Your task to perform on an android device: open app "Grab" (install if not already installed) and go to login screen Image 0: 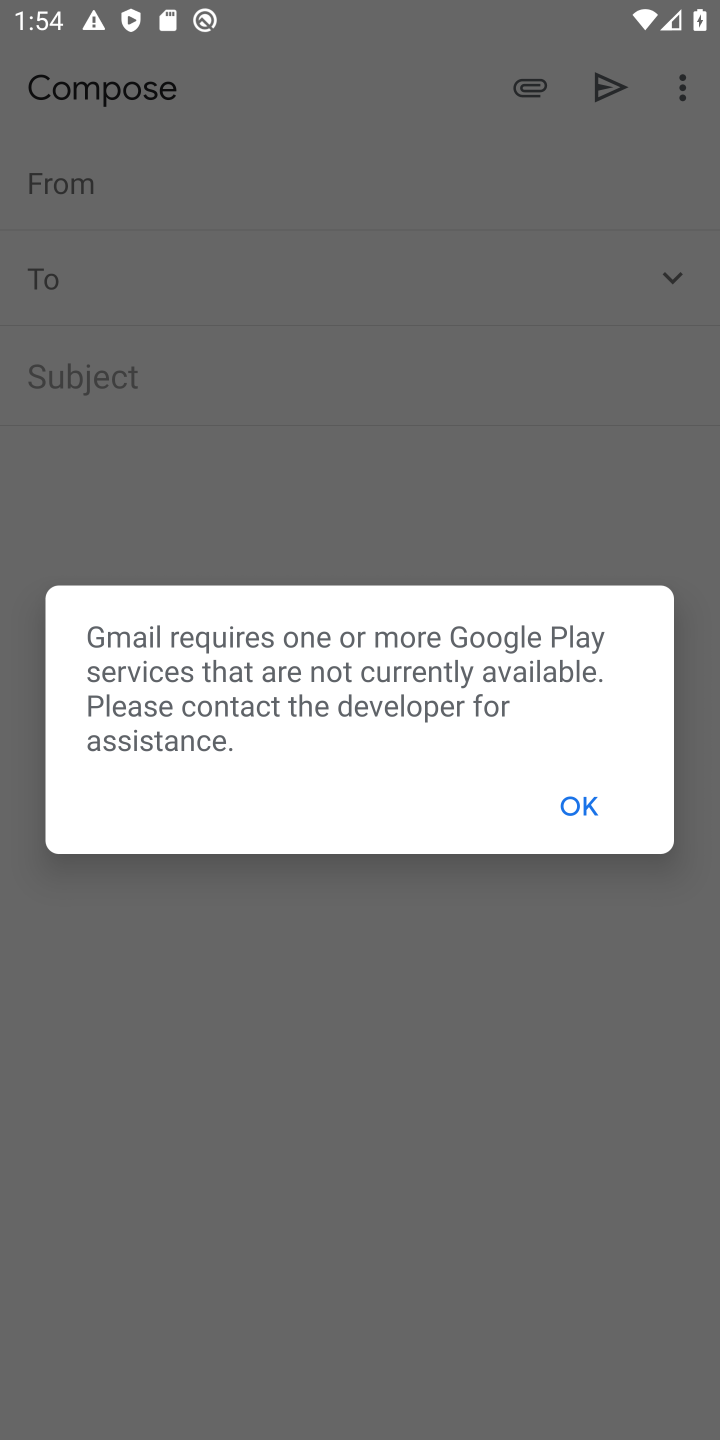
Step 0: click (579, 84)
Your task to perform on an android device: open app "Grab" (install if not already installed) and go to login screen Image 1: 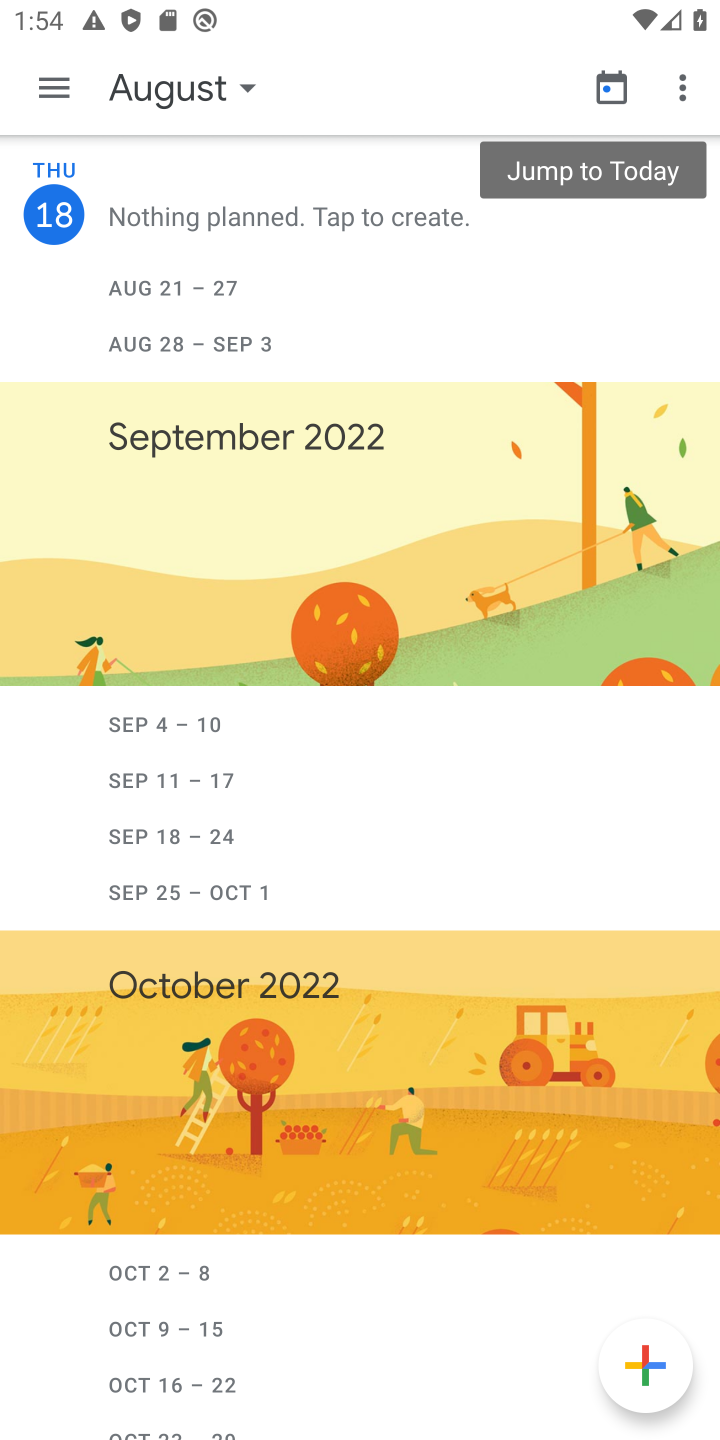
Step 1: press home button
Your task to perform on an android device: open app "Grab" (install if not already installed) and go to login screen Image 2: 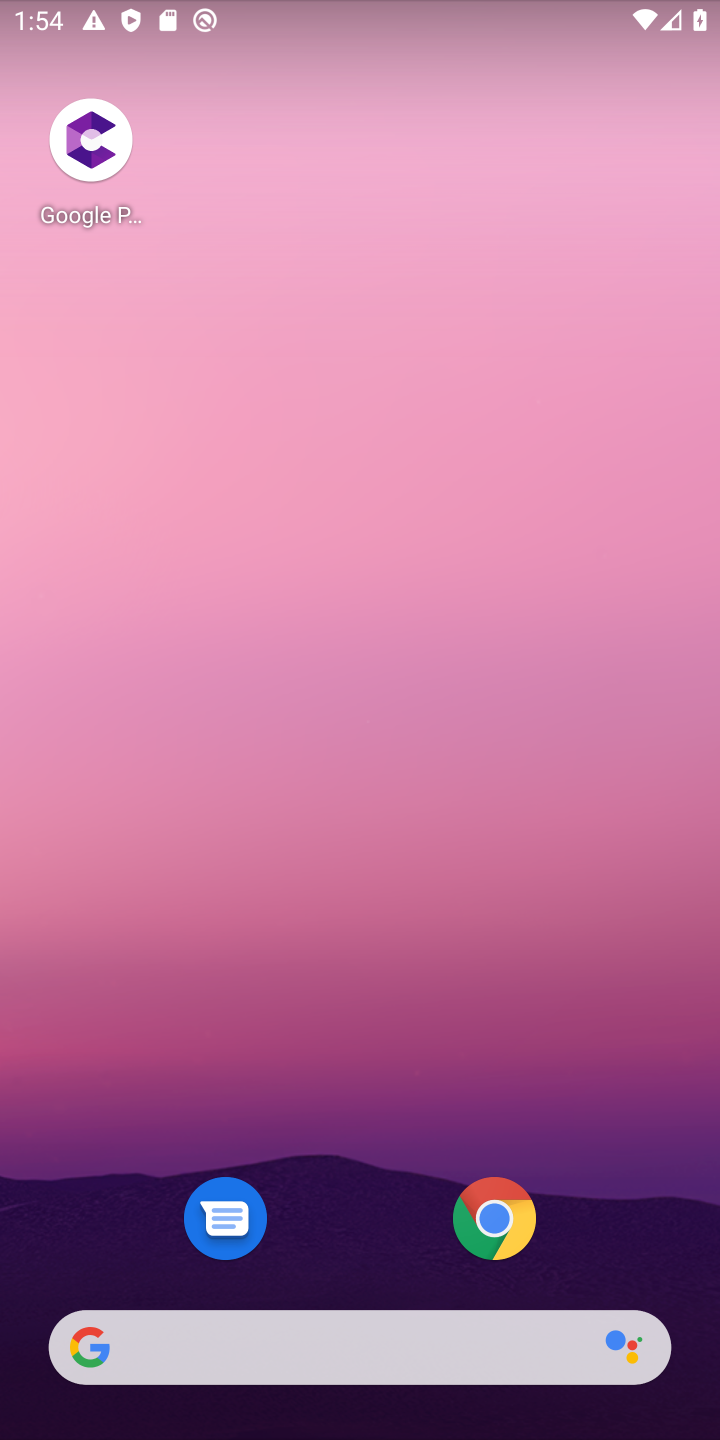
Step 2: drag from (369, 722) to (369, 256)
Your task to perform on an android device: open app "Grab" (install if not already installed) and go to login screen Image 3: 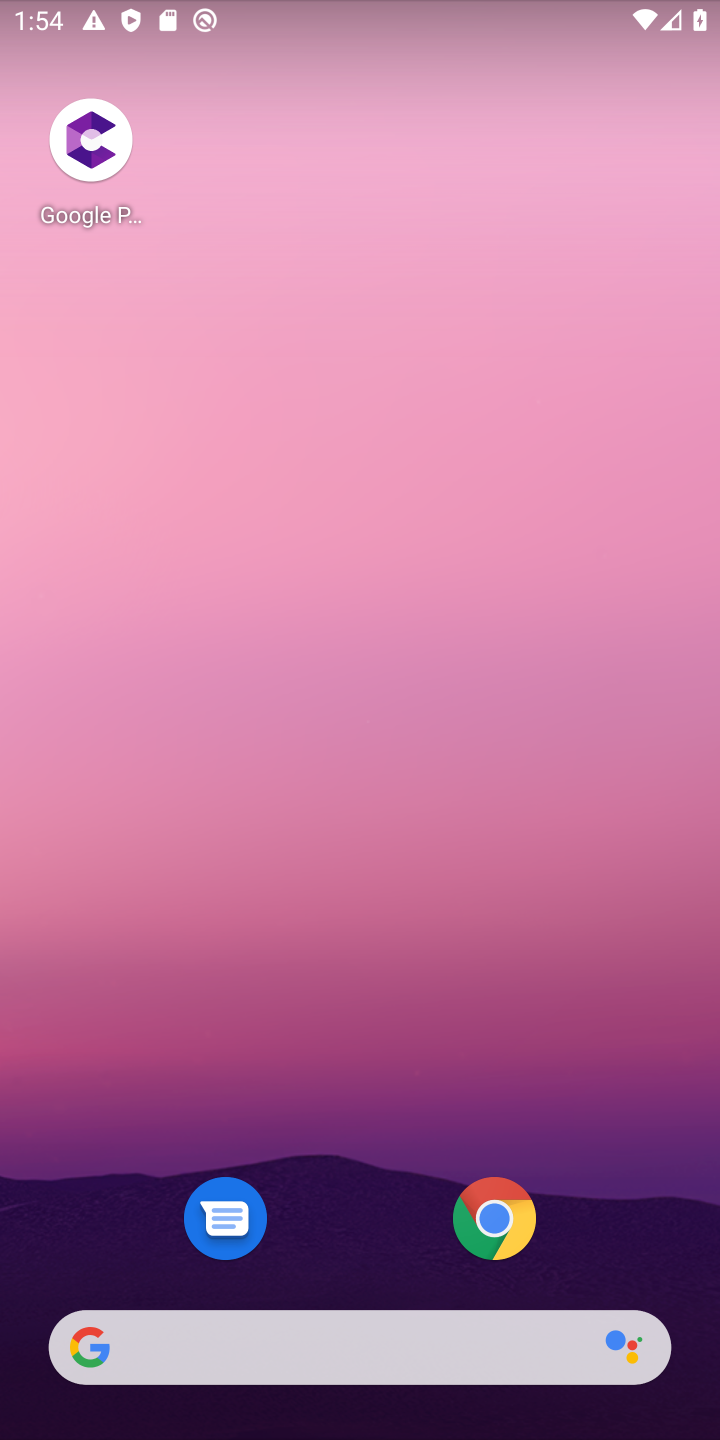
Step 3: drag from (360, 1159) to (369, 352)
Your task to perform on an android device: open app "Grab" (install if not already installed) and go to login screen Image 4: 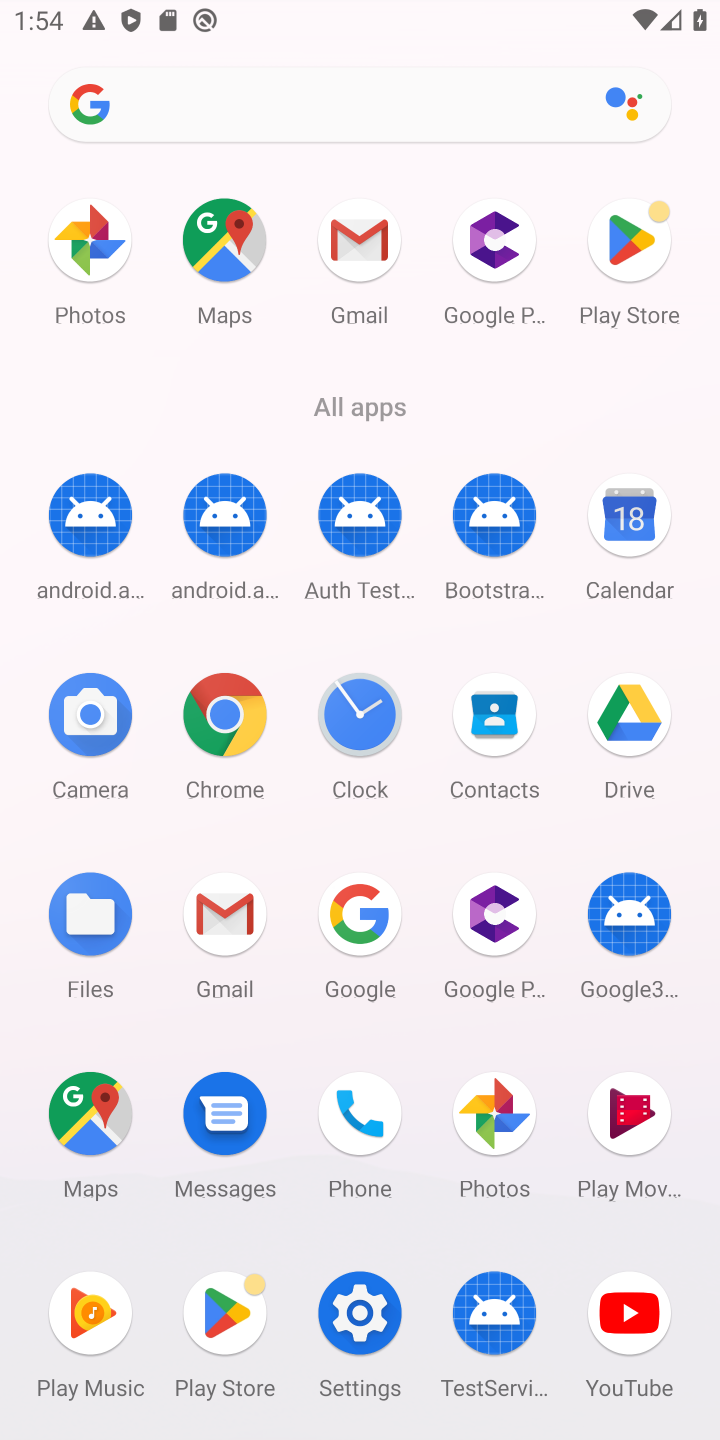
Step 4: click (635, 244)
Your task to perform on an android device: open app "Grab" (install if not already installed) and go to login screen Image 5: 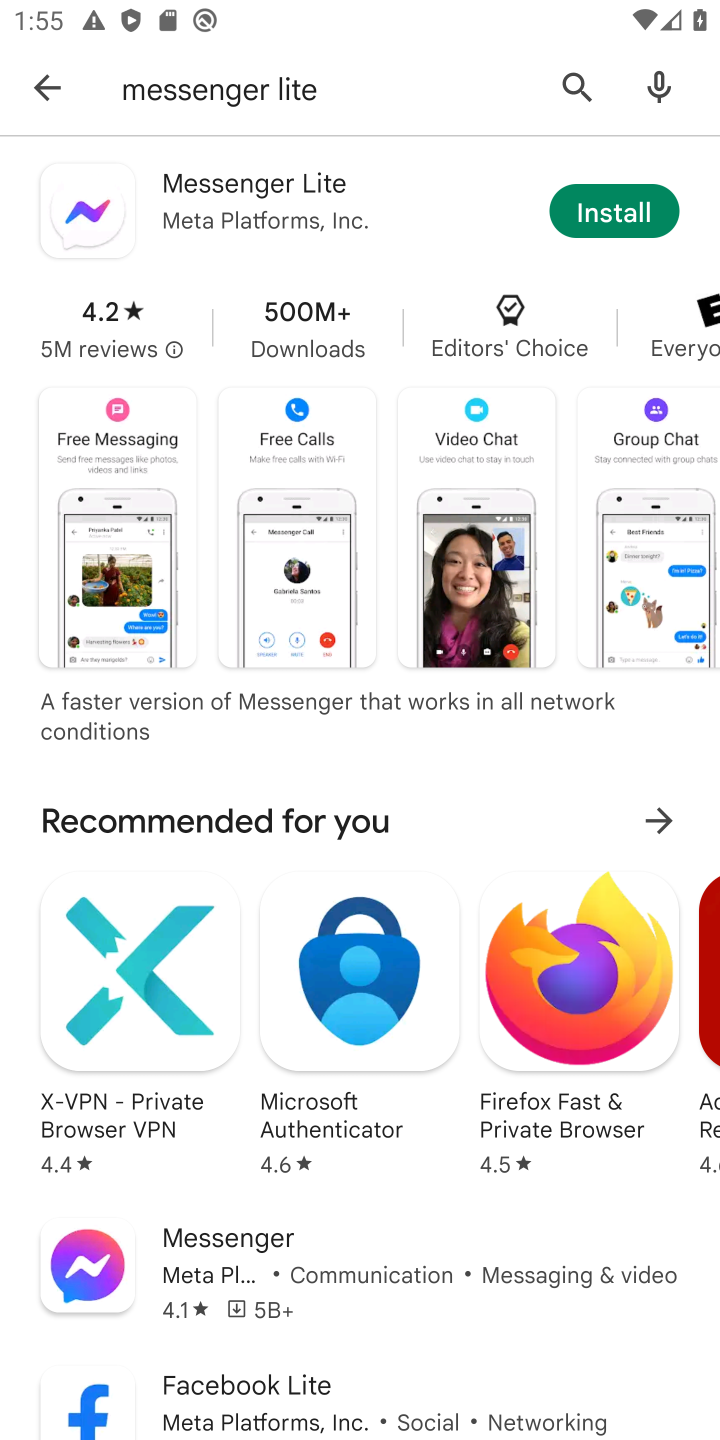
Step 5: click (577, 89)
Your task to perform on an android device: open app "Grab" (install if not already installed) and go to login screen Image 6: 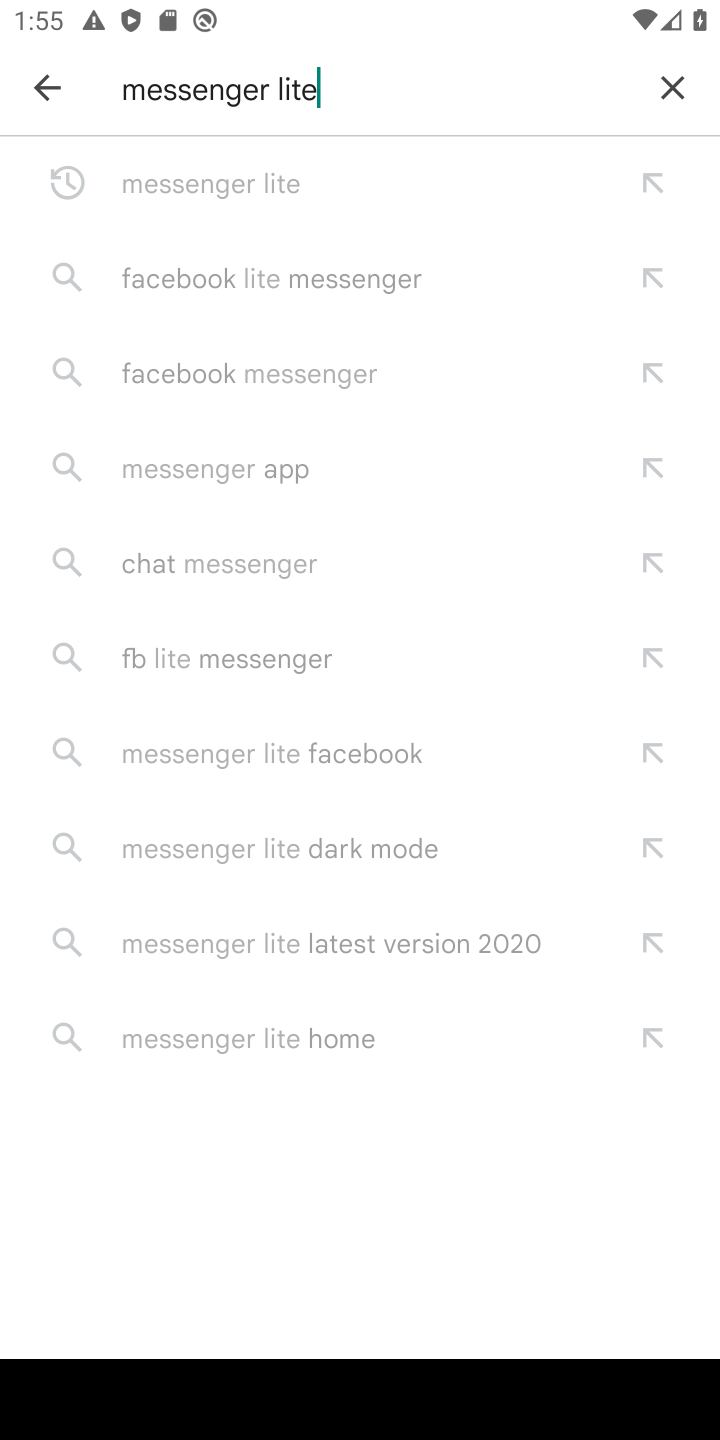
Step 6: click (658, 82)
Your task to perform on an android device: open app "Grab" (install if not already installed) and go to login screen Image 7: 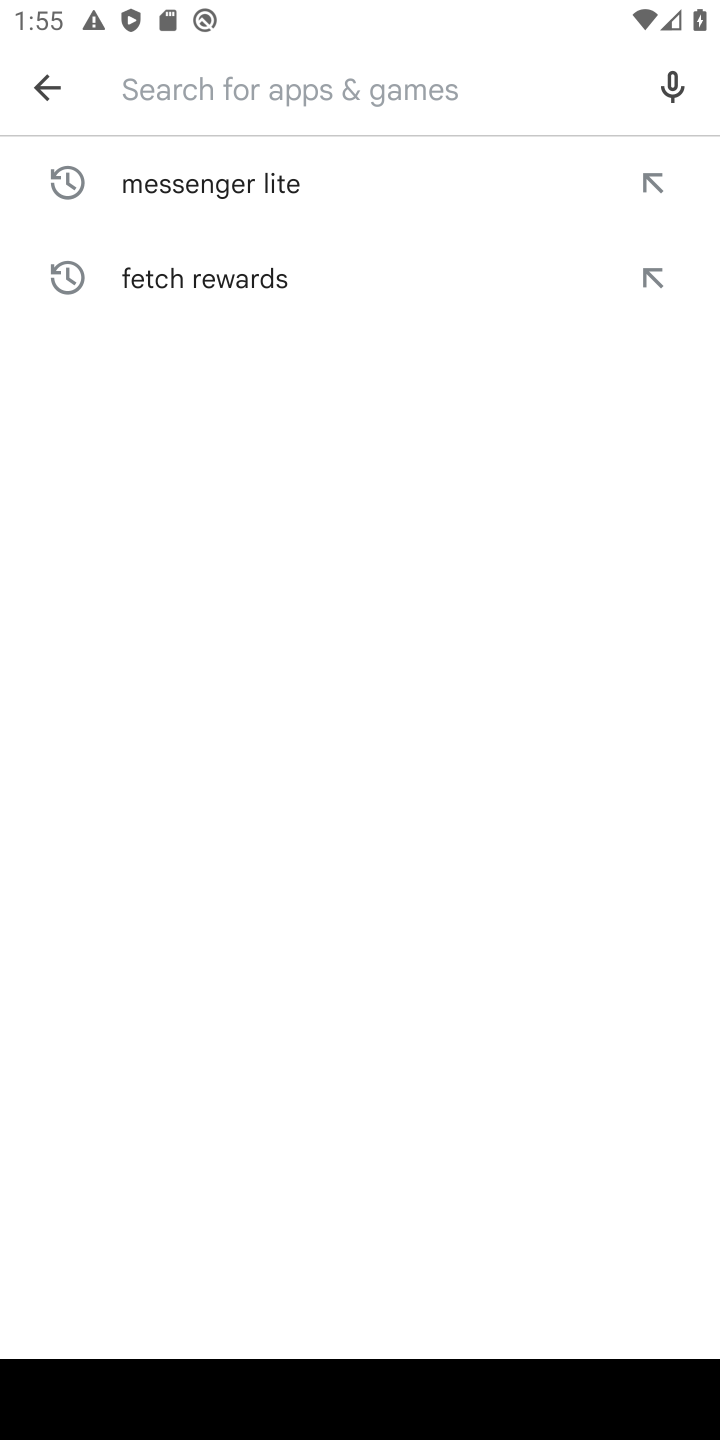
Step 7: type "Grab"
Your task to perform on an android device: open app "Grab" (install if not already installed) and go to login screen Image 8: 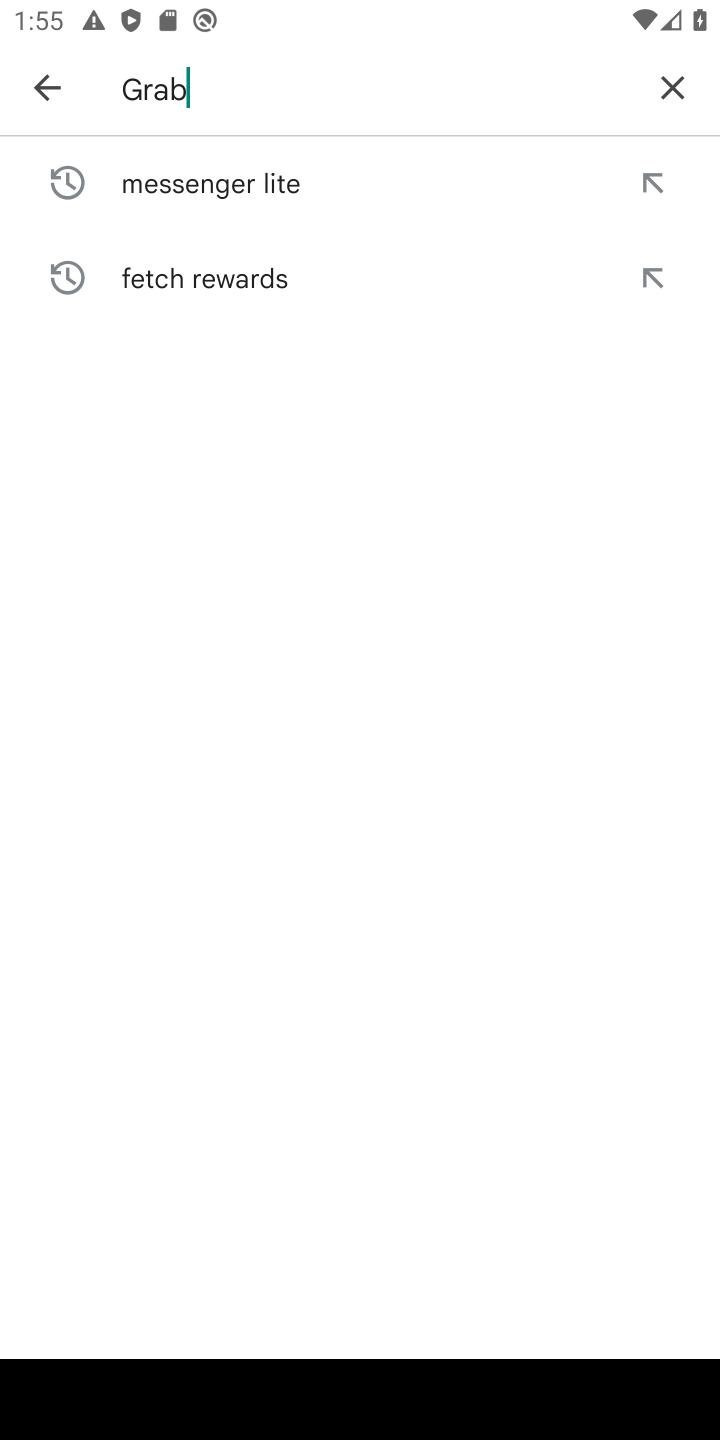
Step 8: type ""
Your task to perform on an android device: open app "Grab" (install if not already installed) and go to login screen Image 9: 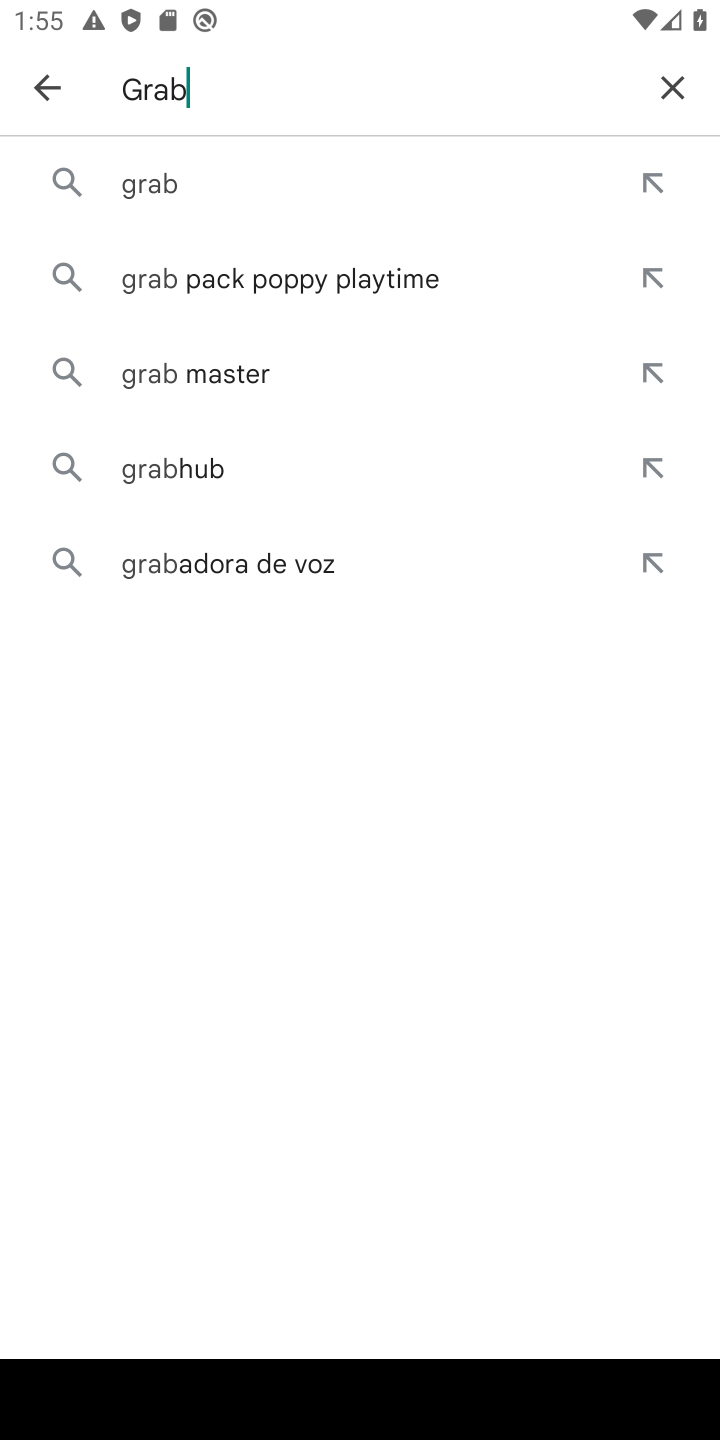
Step 9: click (219, 173)
Your task to perform on an android device: open app "Grab" (install if not already installed) and go to login screen Image 10: 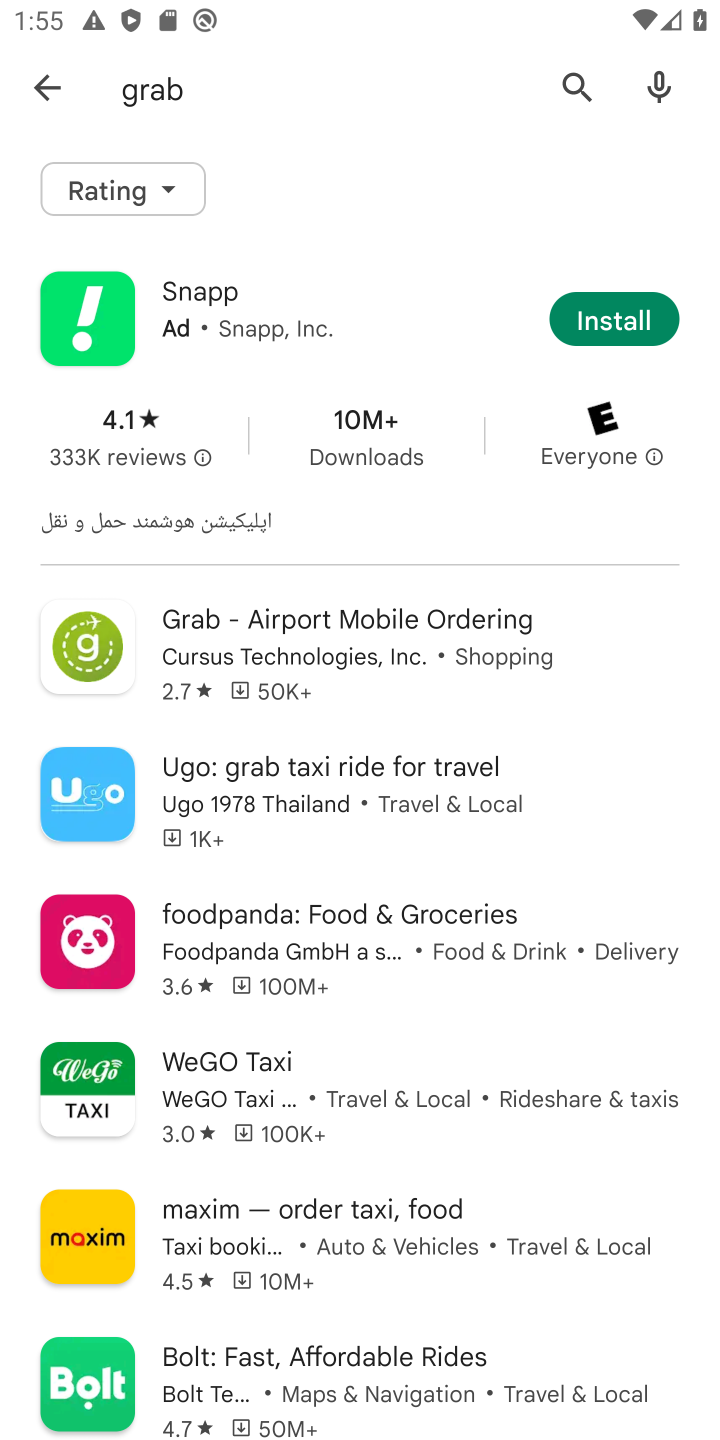
Step 10: click (425, 659)
Your task to perform on an android device: open app "Grab" (install if not already installed) and go to login screen Image 11: 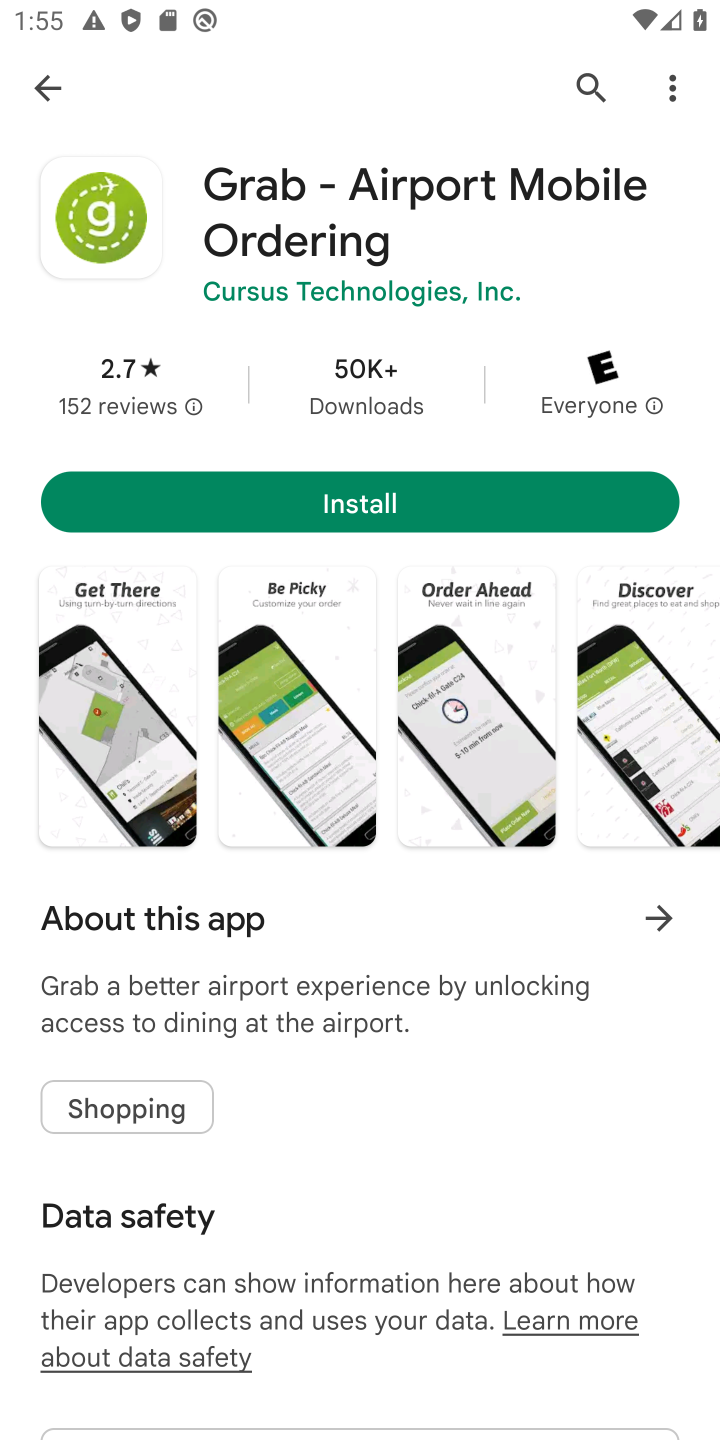
Step 11: click (427, 503)
Your task to perform on an android device: open app "Grab" (install if not already installed) and go to login screen Image 12: 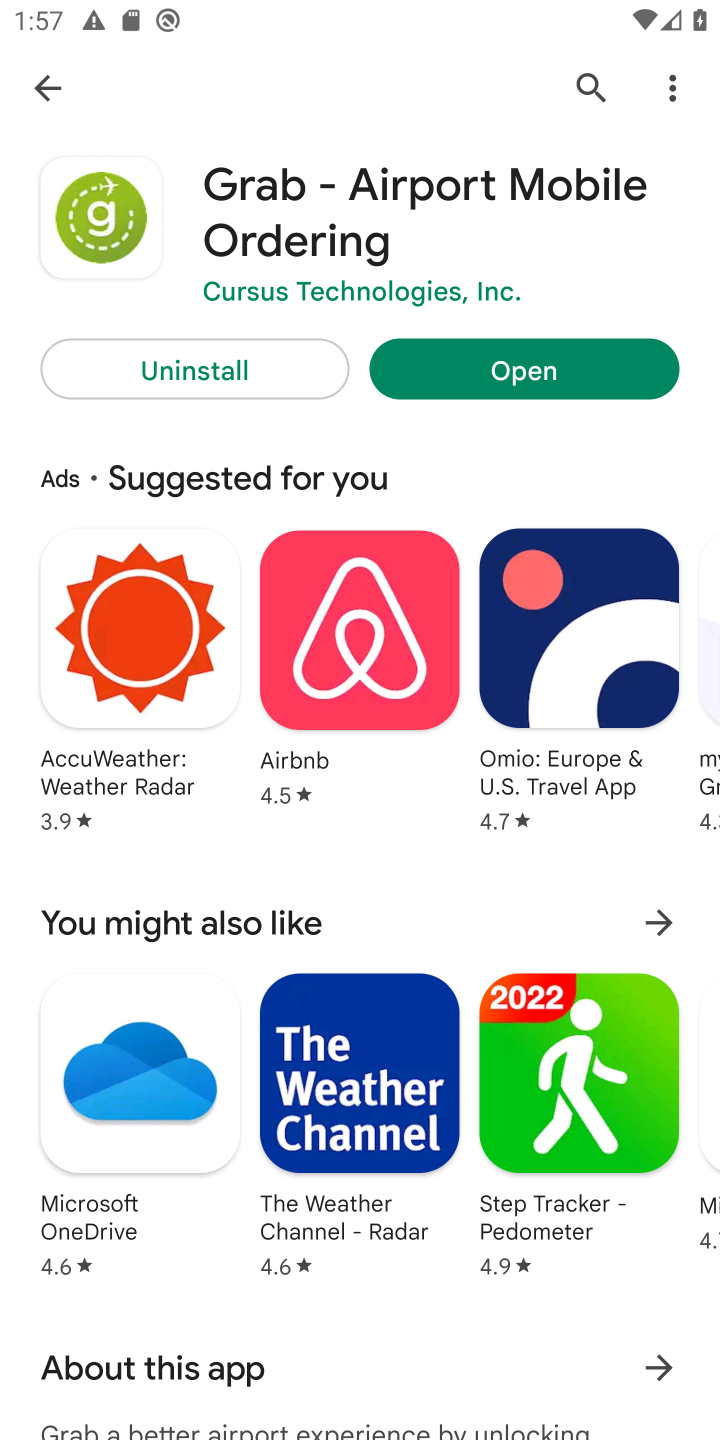
Step 12: click (646, 374)
Your task to perform on an android device: open app "Grab" (install if not already installed) and go to login screen Image 13: 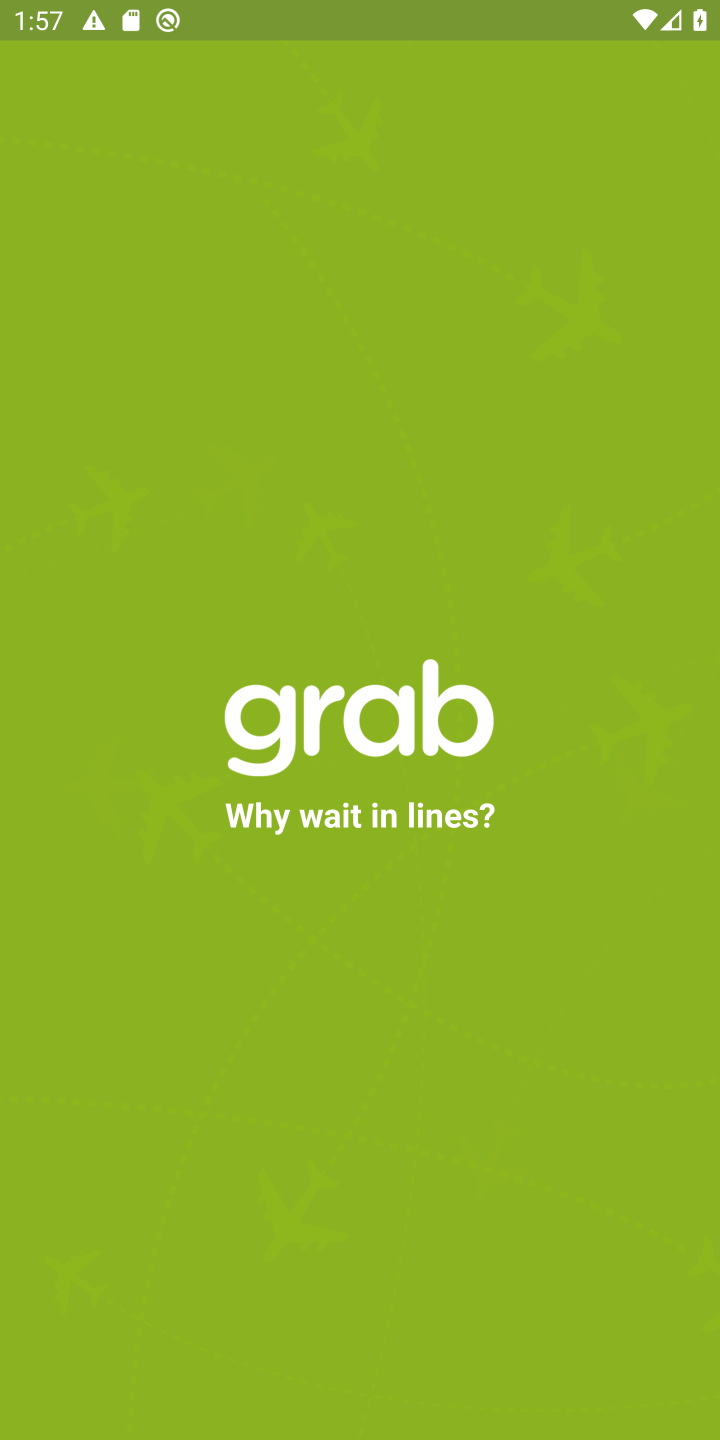
Step 13: task complete